Your task to perform on an android device: Search for vegetarian restaurants on Maps Image 0: 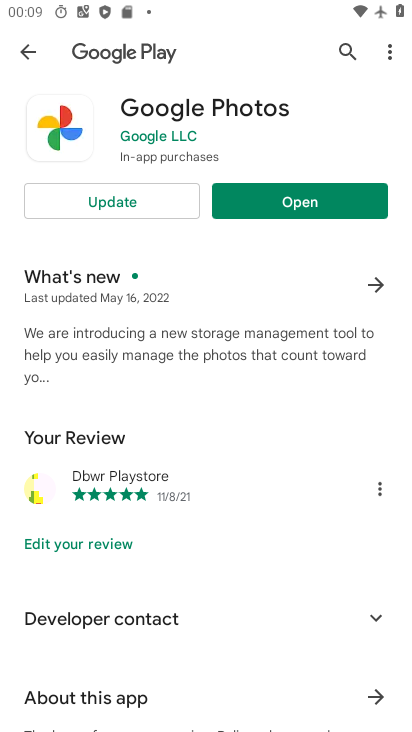
Step 0: press home button
Your task to perform on an android device: Search for vegetarian restaurants on Maps Image 1: 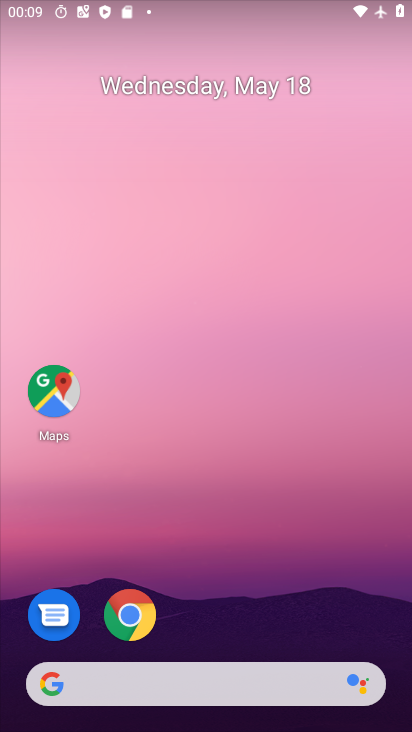
Step 1: click (52, 378)
Your task to perform on an android device: Search for vegetarian restaurants on Maps Image 2: 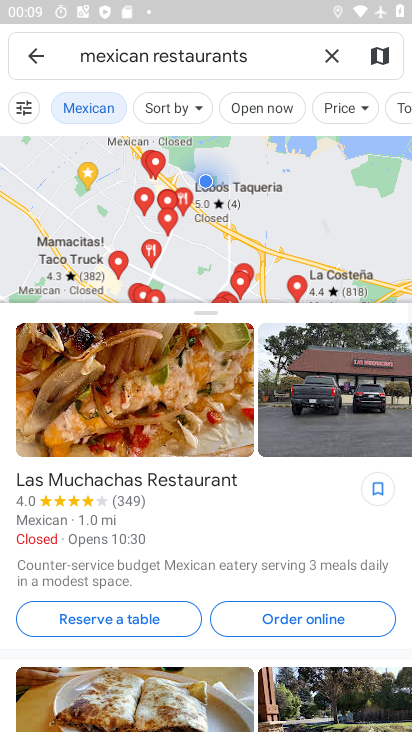
Step 2: click (325, 59)
Your task to perform on an android device: Search for vegetarian restaurants on Maps Image 3: 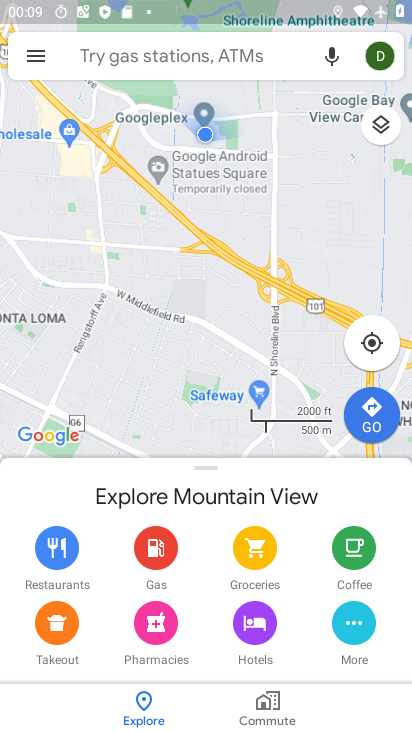
Step 3: click (206, 50)
Your task to perform on an android device: Search for vegetarian restaurants on Maps Image 4: 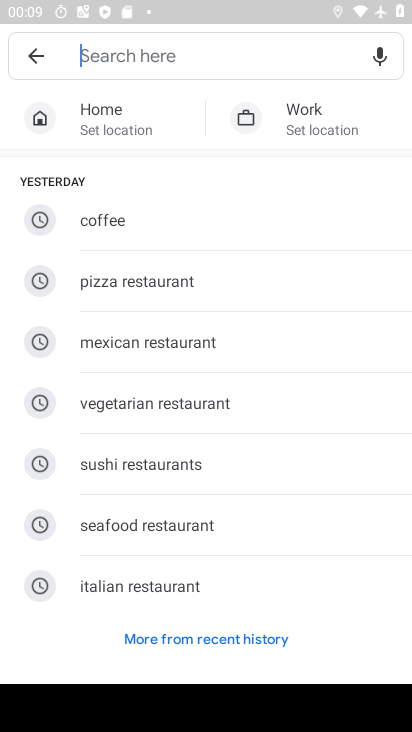
Step 4: click (187, 410)
Your task to perform on an android device: Search for vegetarian restaurants on Maps Image 5: 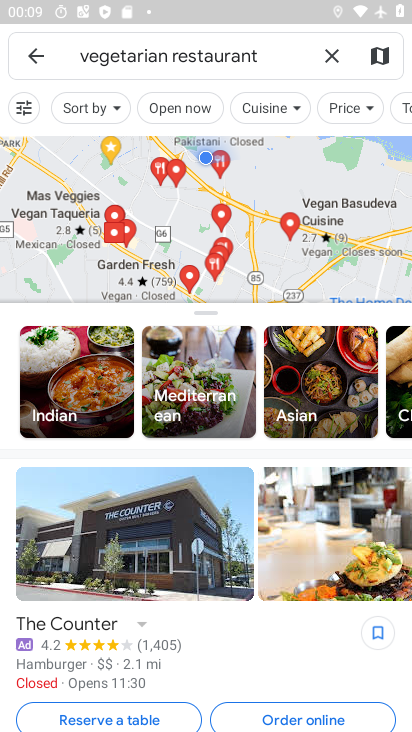
Step 5: task complete